Your task to perform on an android device: open app "DoorDash - Food Delivery" (install if not already installed) Image 0: 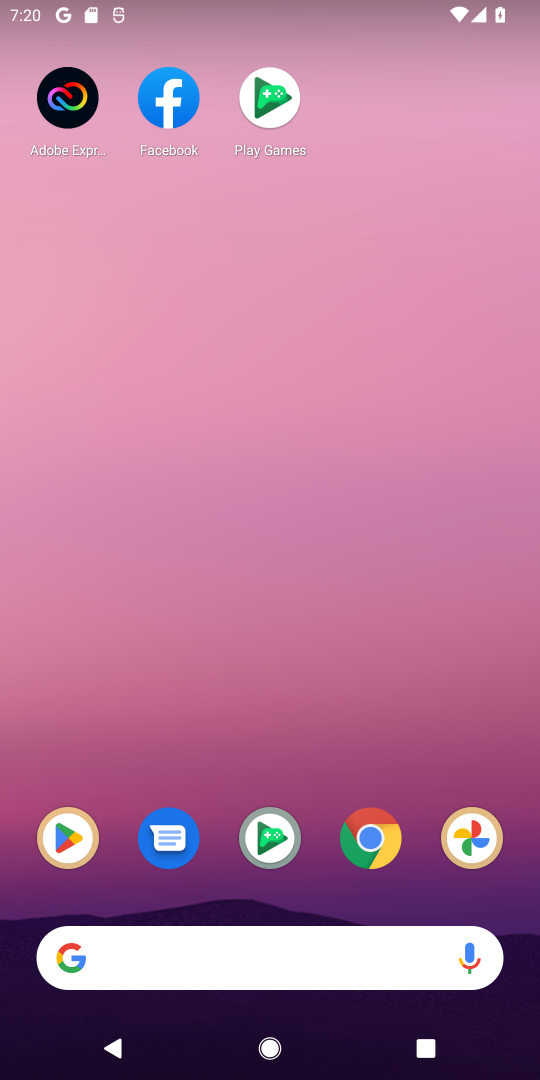
Step 0: click (60, 812)
Your task to perform on an android device: open app "DoorDash - Food Delivery" (install if not already installed) Image 1: 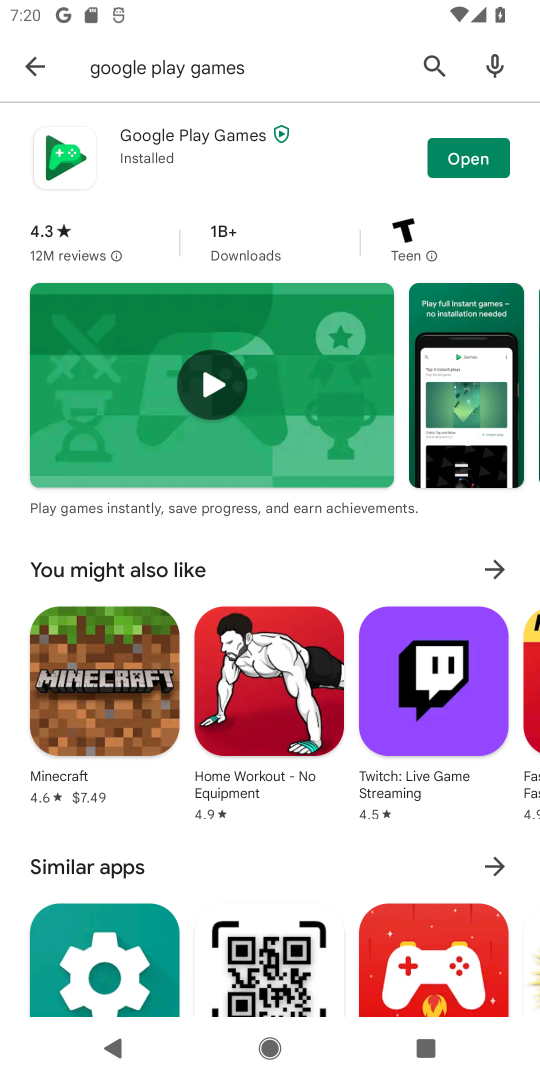
Step 1: click (21, 809)
Your task to perform on an android device: open app "DoorDash - Food Delivery" (install if not already installed) Image 2: 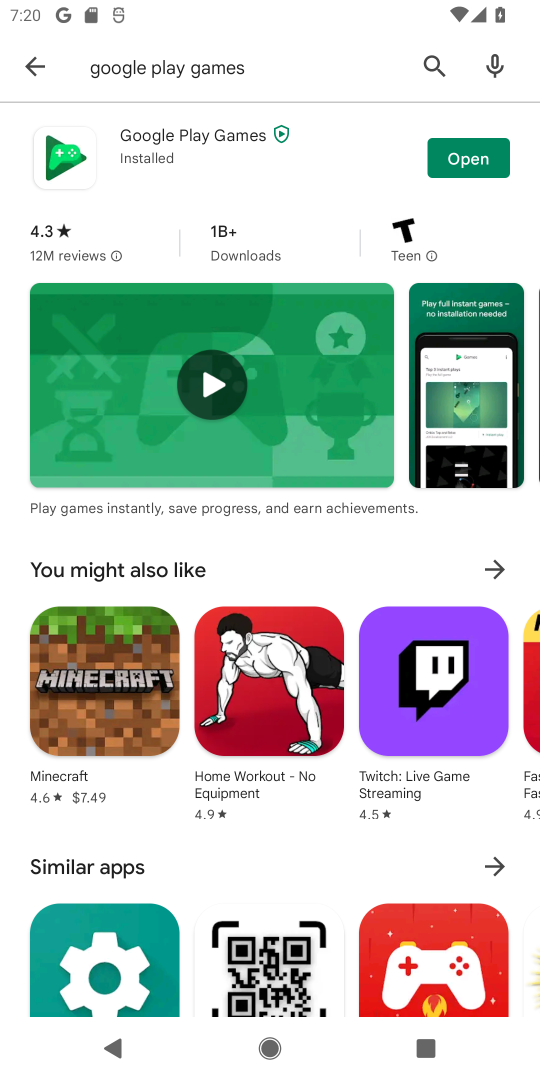
Step 2: click (42, 70)
Your task to perform on an android device: open app "DoorDash - Food Delivery" (install if not already installed) Image 3: 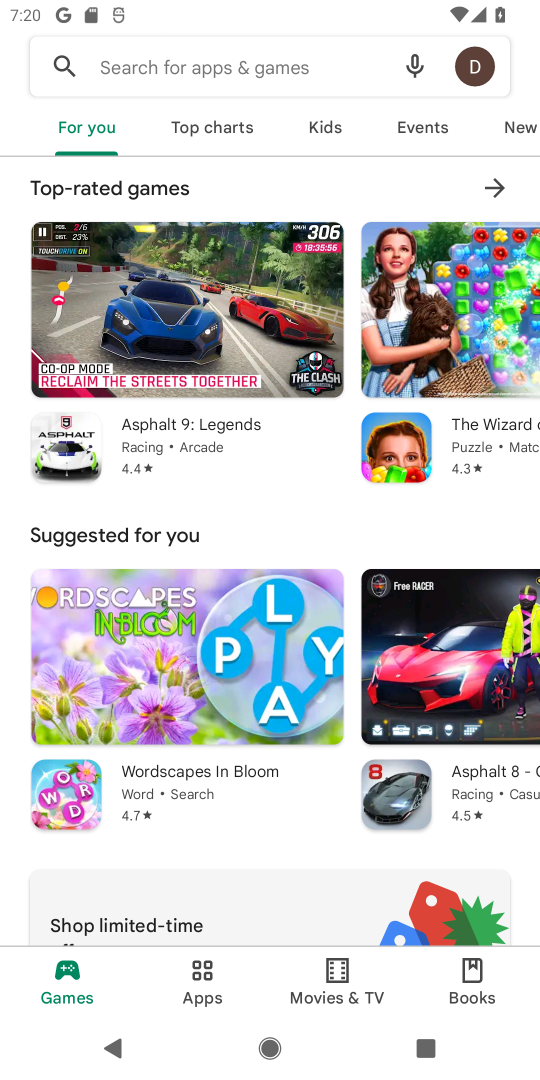
Step 3: click (150, 61)
Your task to perform on an android device: open app "DoorDash - Food Delivery" (install if not already installed) Image 4: 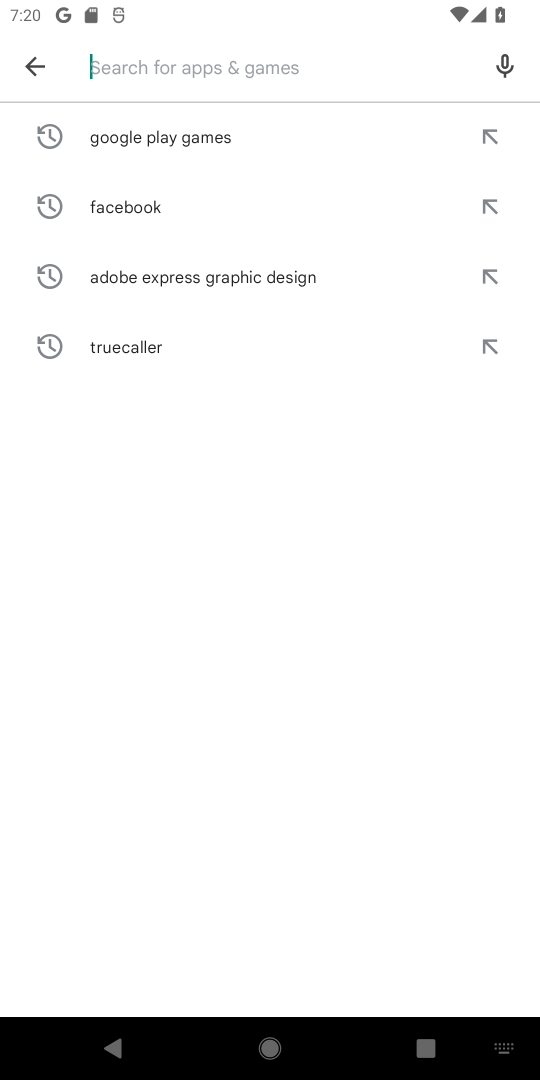
Step 4: type "DoorDash - Food Delivery"
Your task to perform on an android device: open app "DoorDash - Food Delivery" (install if not already installed) Image 5: 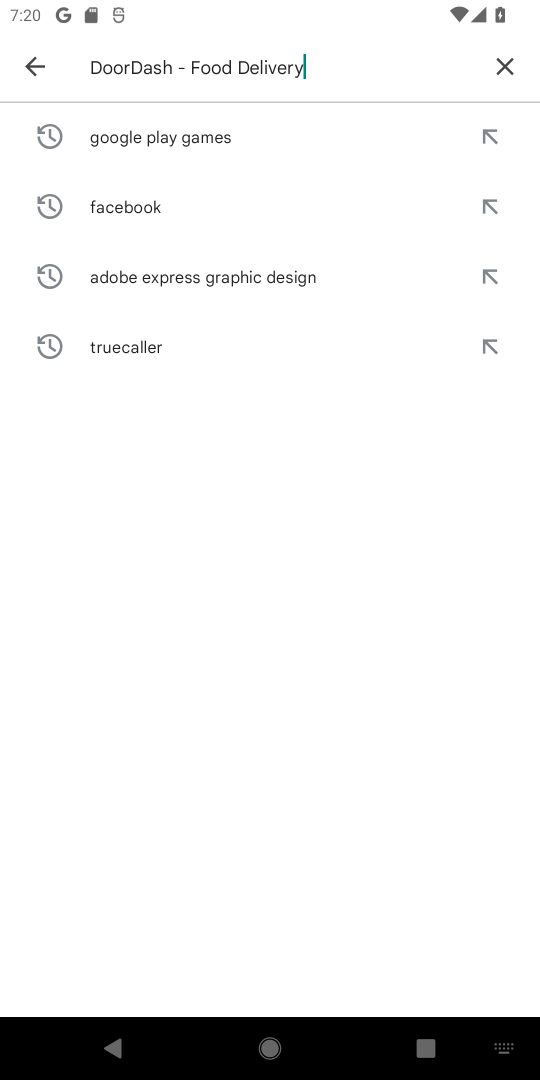
Step 5: type ""
Your task to perform on an android device: open app "DoorDash - Food Delivery" (install if not already installed) Image 6: 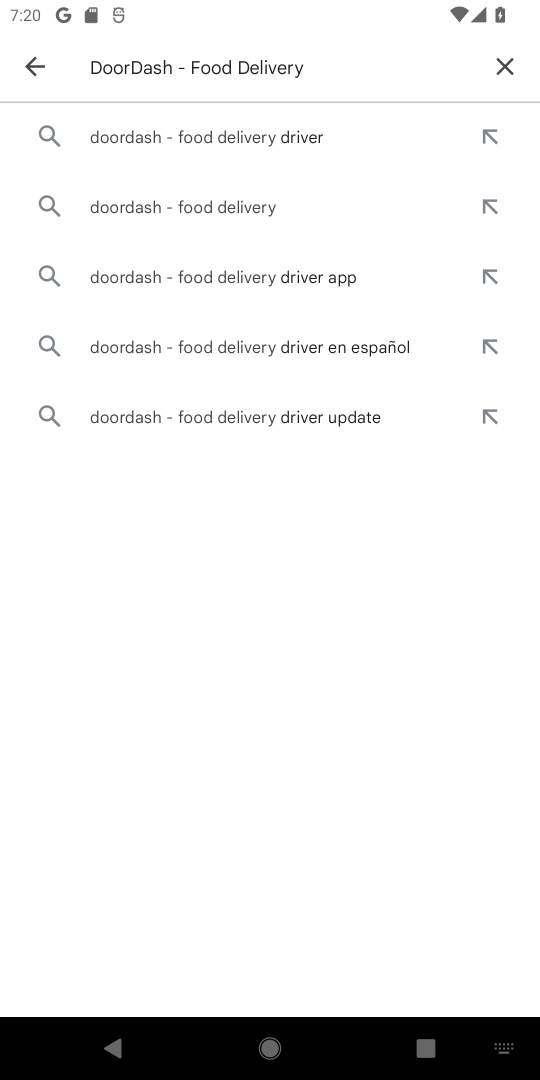
Step 6: click (118, 134)
Your task to perform on an android device: open app "DoorDash - Food Delivery" (install if not already installed) Image 7: 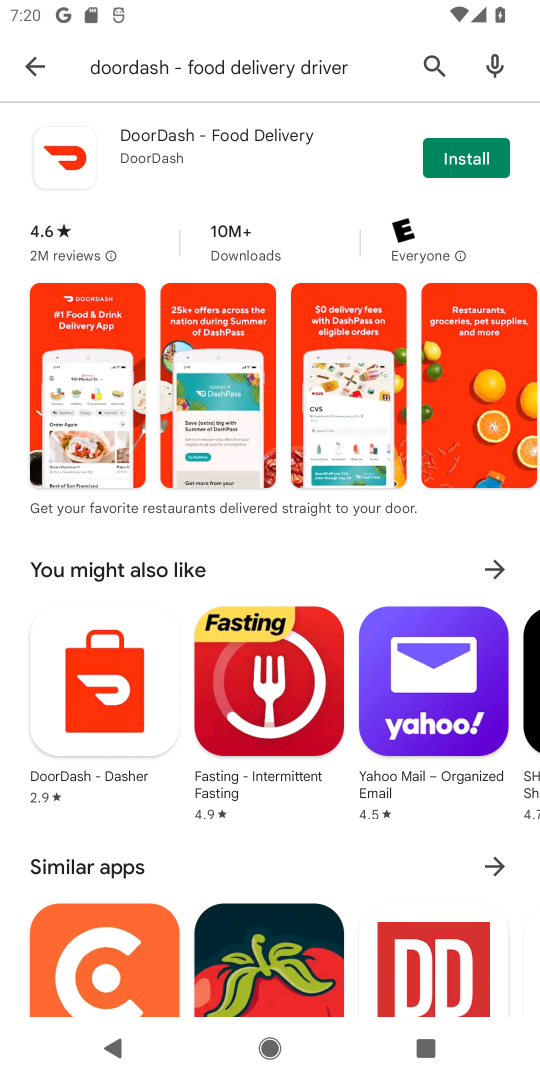
Step 7: click (311, 170)
Your task to perform on an android device: open app "DoorDash - Food Delivery" (install if not already installed) Image 8: 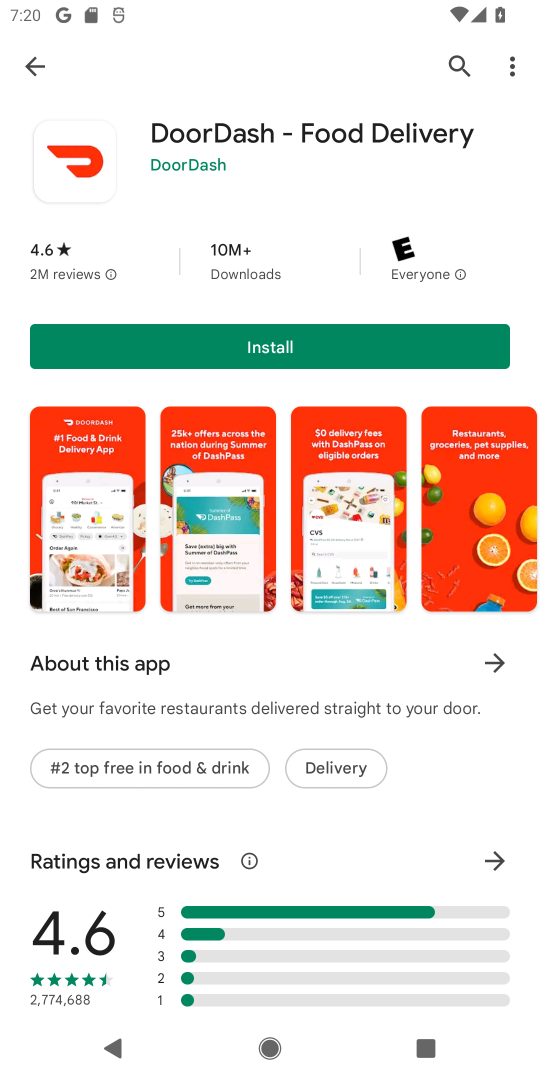
Step 8: click (327, 341)
Your task to perform on an android device: open app "DoorDash - Food Delivery" (install if not already installed) Image 9: 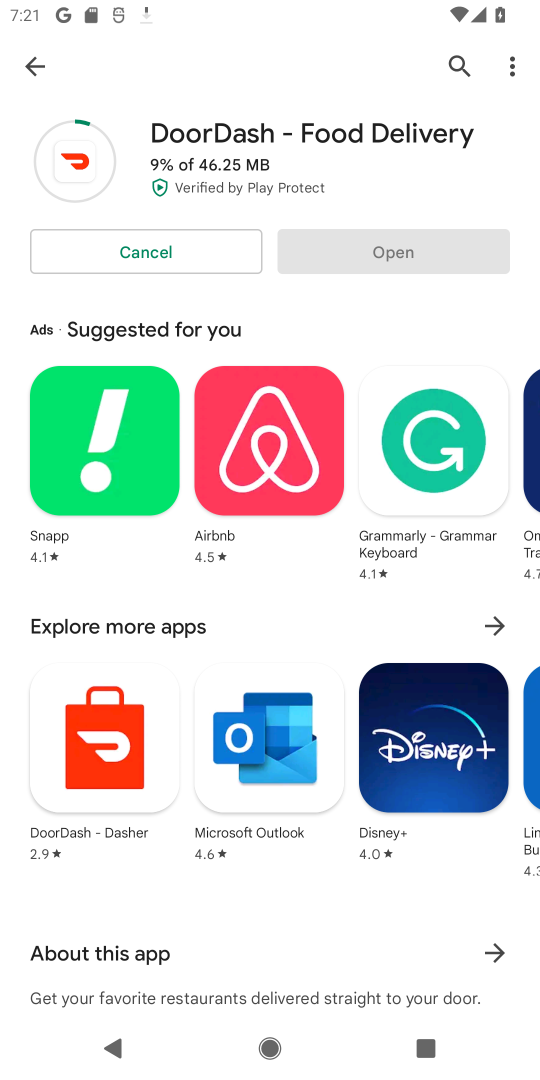
Step 9: task complete